Your task to perform on an android device: Open Google Maps Image 0: 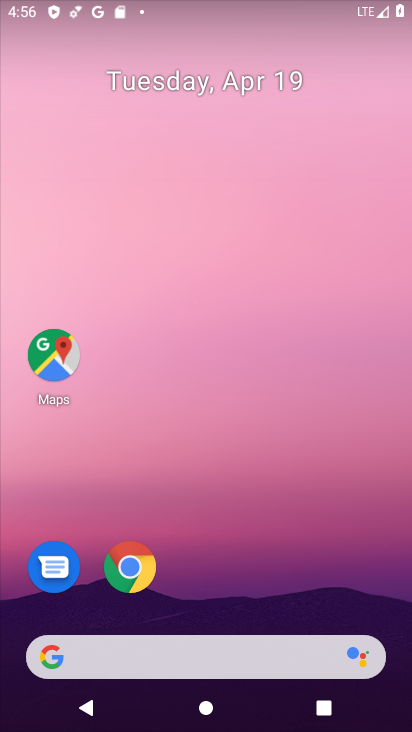
Step 0: drag from (312, 464) to (254, 29)
Your task to perform on an android device: Open Google Maps Image 1: 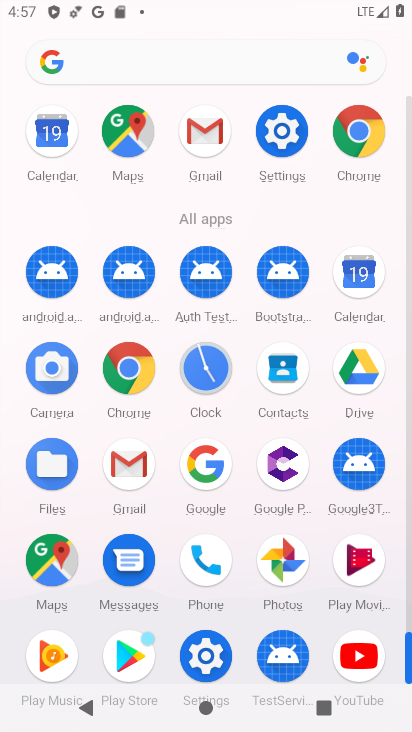
Step 1: click (67, 564)
Your task to perform on an android device: Open Google Maps Image 2: 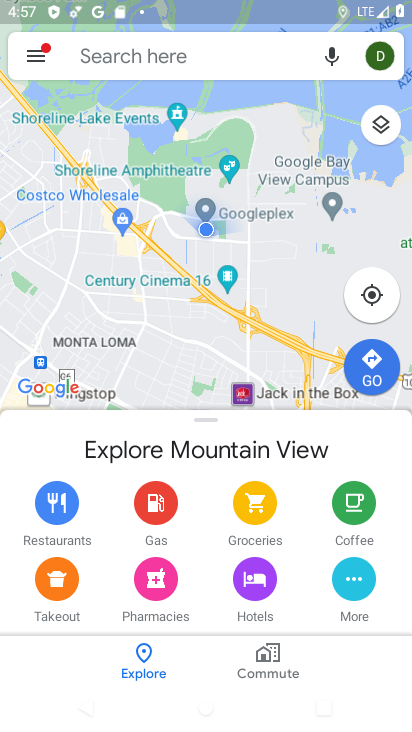
Step 2: task complete